Your task to perform on an android device: turn on sleep mode Image 0: 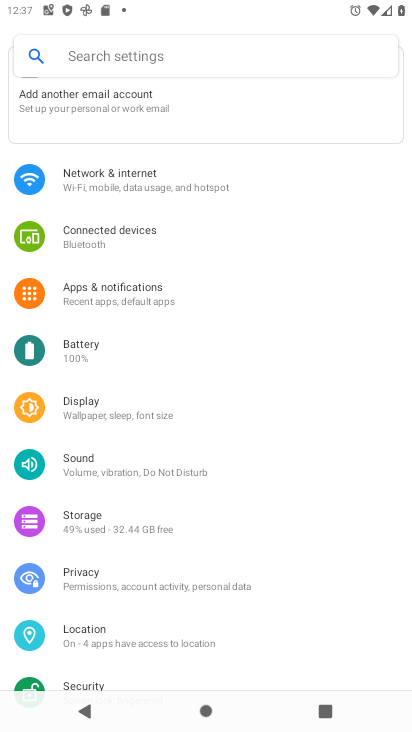
Step 0: click (119, 414)
Your task to perform on an android device: turn on sleep mode Image 1: 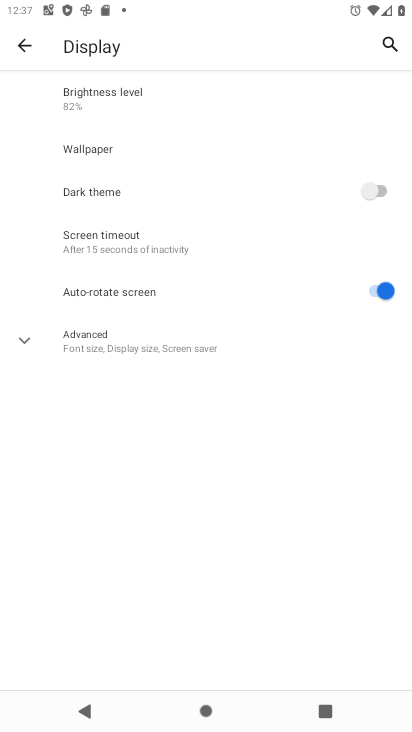
Step 1: click (148, 253)
Your task to perform on an android device: turn on sleep mode Image 2: 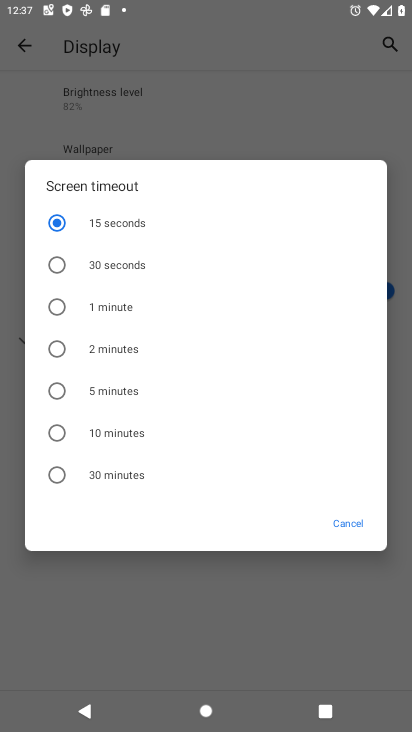
Step 2: task complete